Your task to perform on an android device: Open Amazon Image 0: 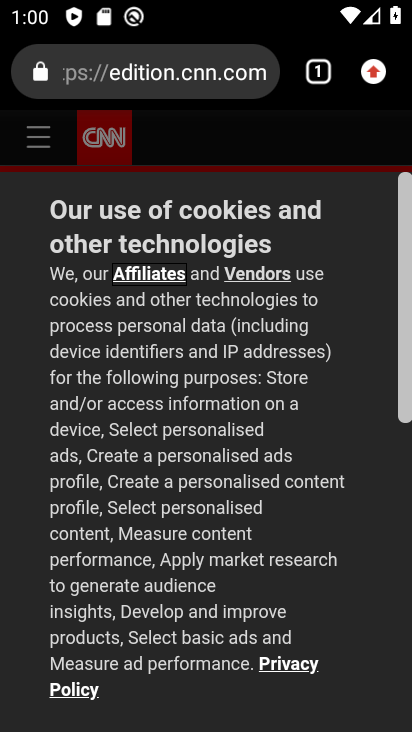
Step 0: drag from (290, 53) to (281, 229)
Your task to perform on an android device: Open Amazon Image 1: 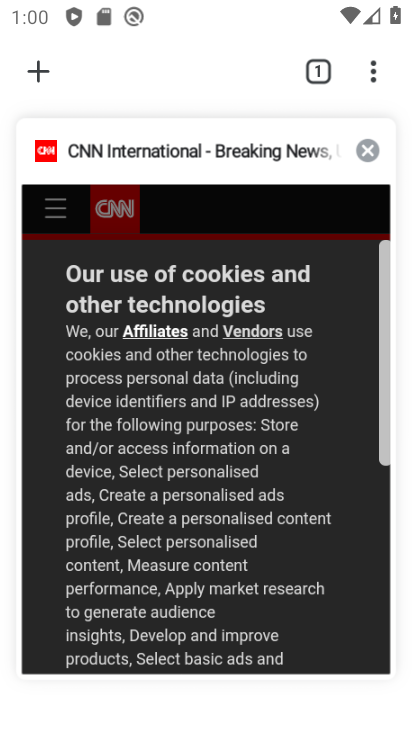
Step 1: click (40, 67)
Your task to perform on an android device: Open Amazon Image 2: 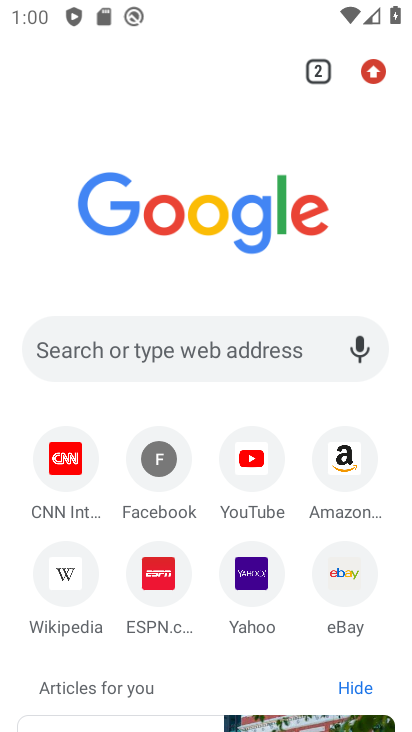
Step 2: click (353, 467)
Your task to perform on an android device: Open Amazon Image 3: 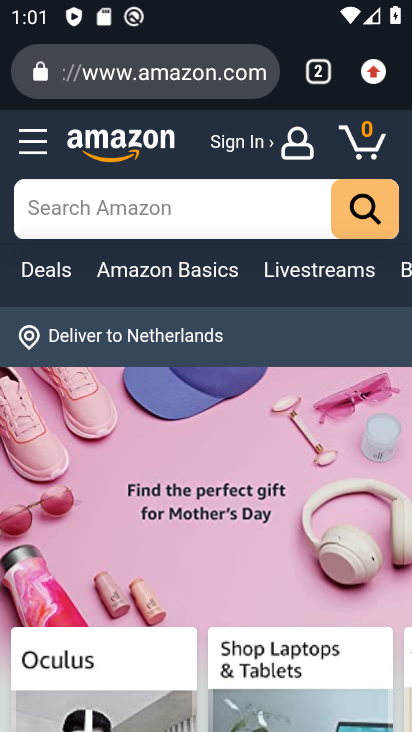
Step 3: task complete